Your task to perform on an android device: Search for Italian restaurants on Maps Image 0: 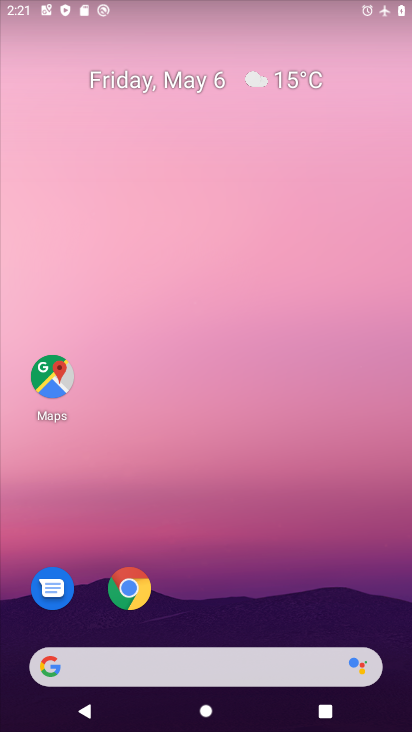
Step 0: drag from (171, 621) to (214, 132)
Your task to perform on an android device: Search for Italian restaurants on Maps Image 1: 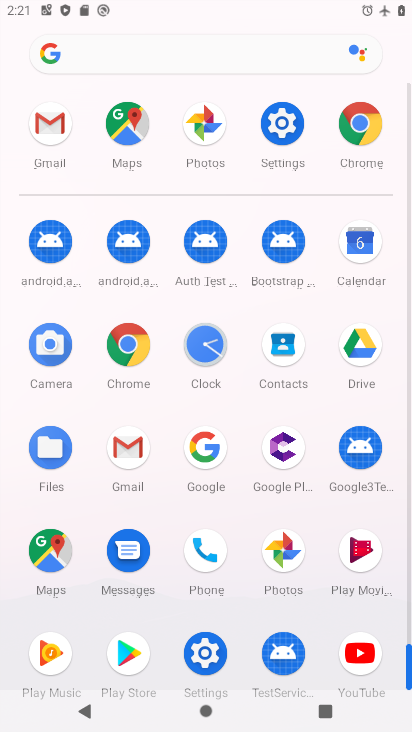
Step 1: click (39, 544)
Your task to perform on an android device: Search for Italian restaurants on Maps Image 2: 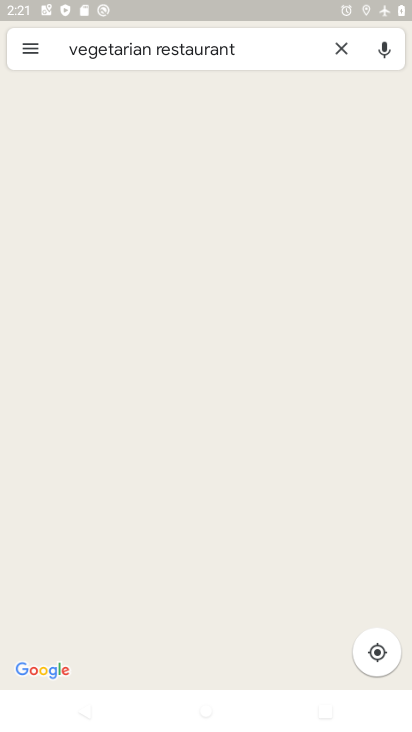
Step 2: drag from (231, 626) to (265, 222)
Your task to perform on an android device: Search for Italian restaurants on Maps Image 3: 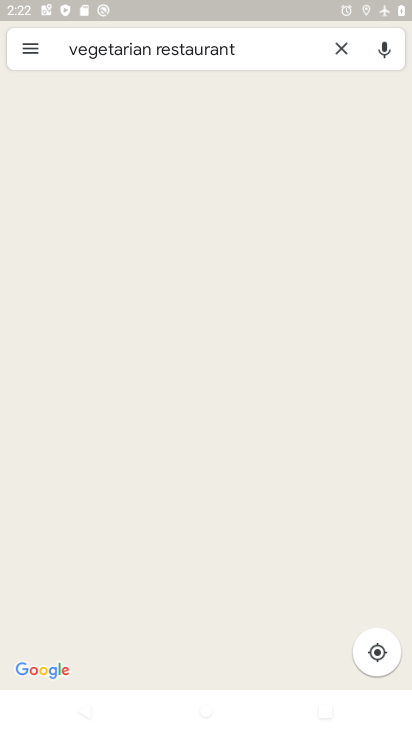
Step 3: drag from (204, 552) to (242, 139)
Your task to perform on an android device: Search for Italian restaurants on Maps Image 4: 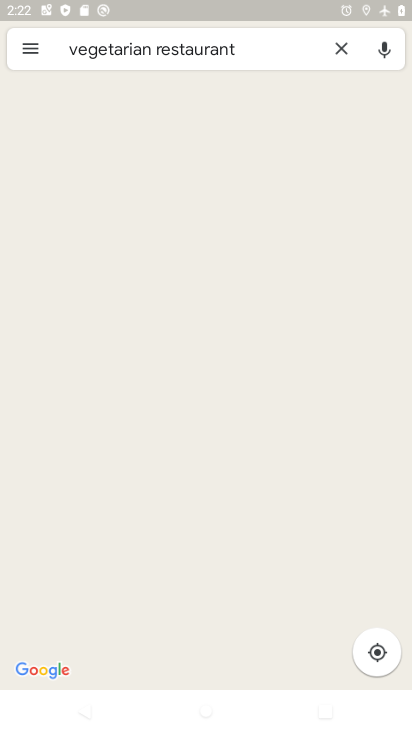
Step 4: click (342, 59)
Your task to perform on an android device: Search for Italian restaurants on Maps Image 5: 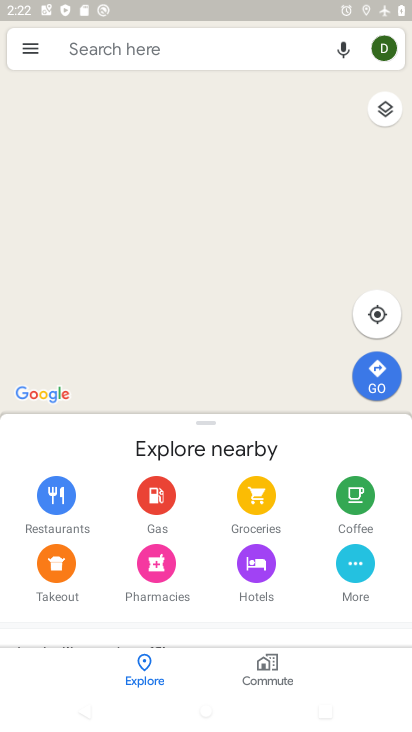
Step 5: click (183, 56)
Your task to perform on an android device: Search for Italian restaurants on Maps Image 6: 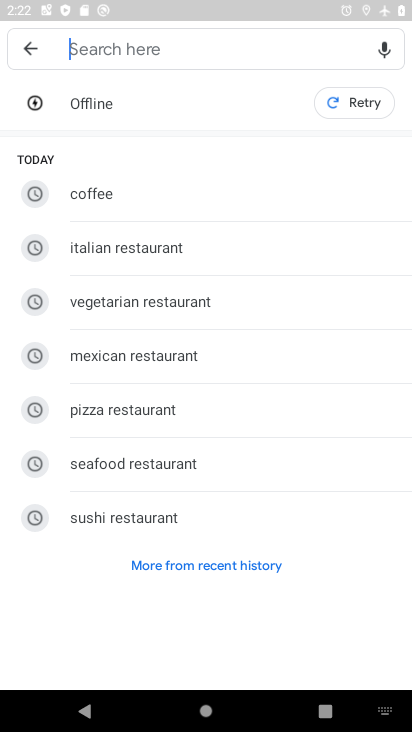
Step 6: type "italian rest"
Your task to perform on an android device: Search for Italian restaurants on Maps Image 7: 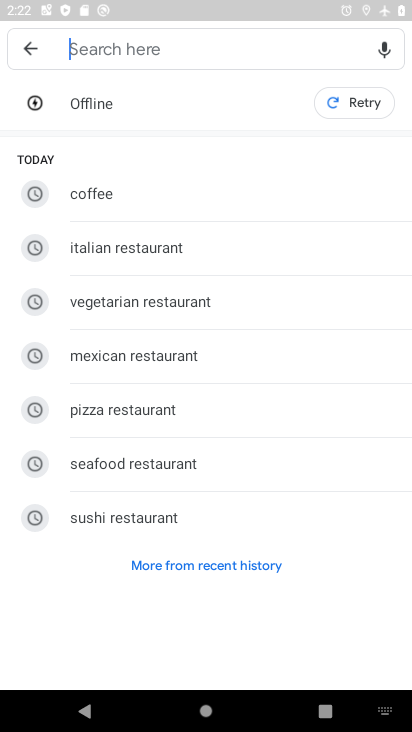
Step 7: click (133, 254)
Your task to perform on an android device: Search for Italian restaurants on Maps Image 8: 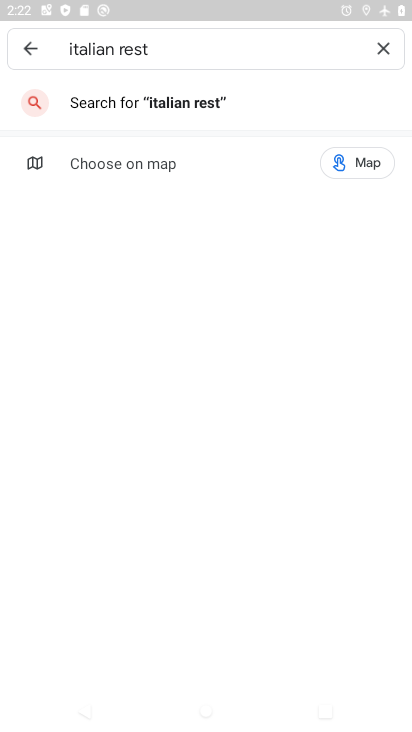
Step 8: click (159, 97)
Your task to perform on an android device: Search for Italian restaurants on Maps Image 9: 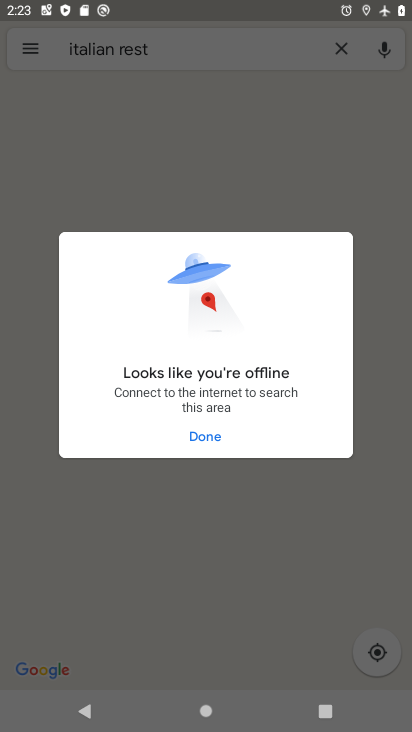
Step 9: click (201, 424)
Your task to perform on an android device: Search for Italian restaurants on Maps Image 10: 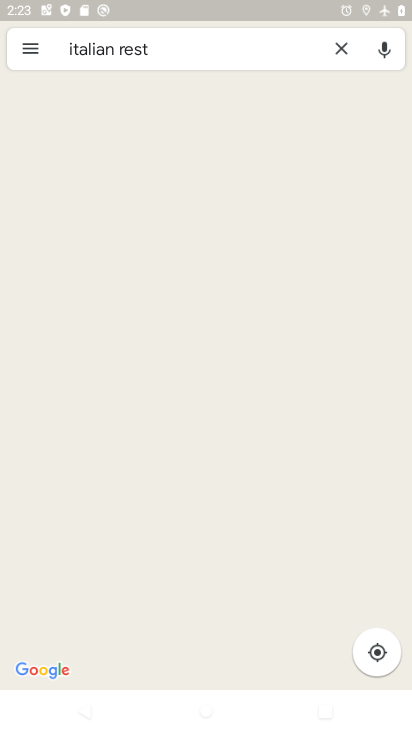
Step 10: task complete